Your task to perform on an android device: toggle translation in the chrome app Image 0: 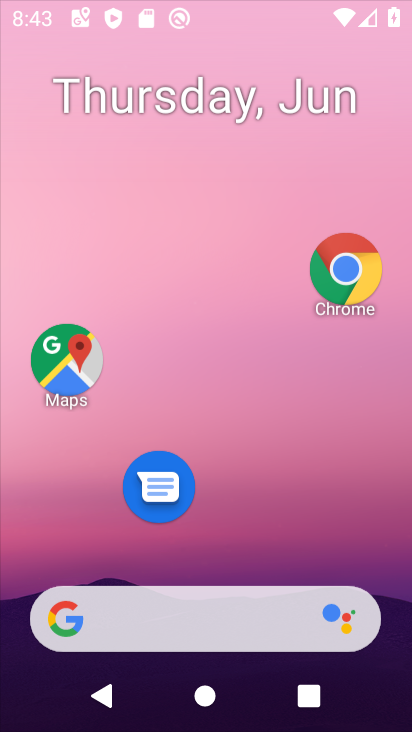
Step 0: click (230, 213)
Your task to perform on an android device: toggle translation in the chrome app Image 1: 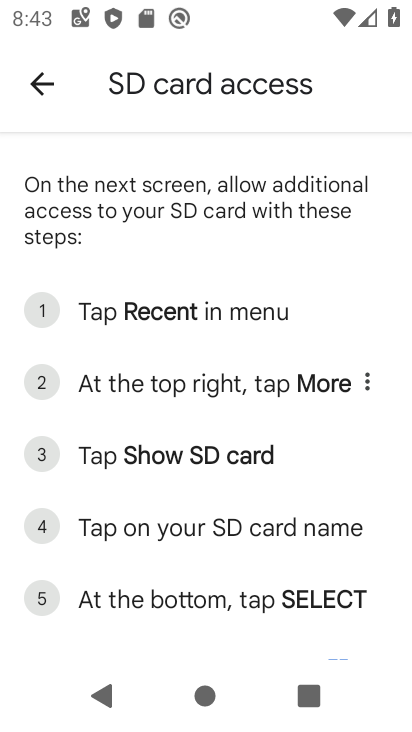
Step 1: drag from (208, 553) to (268, 73)
Your task to perform on an android device: toggle translation in the chrome app Image 2: 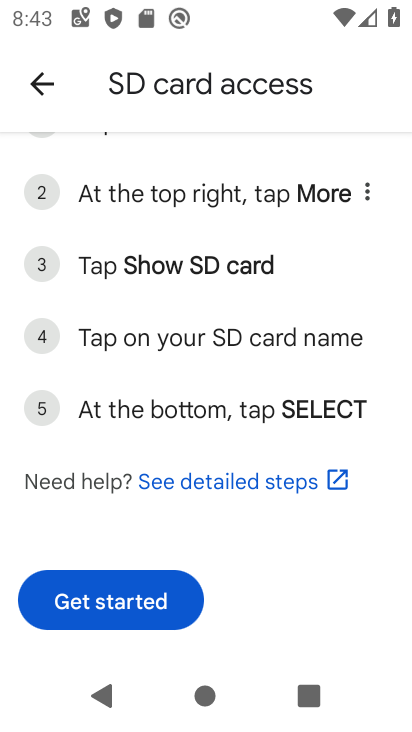
Step 2: drag from (214, 211) to (406, 711)
Your task to perform on an android device: toggle translation in the chrome app Image 3: 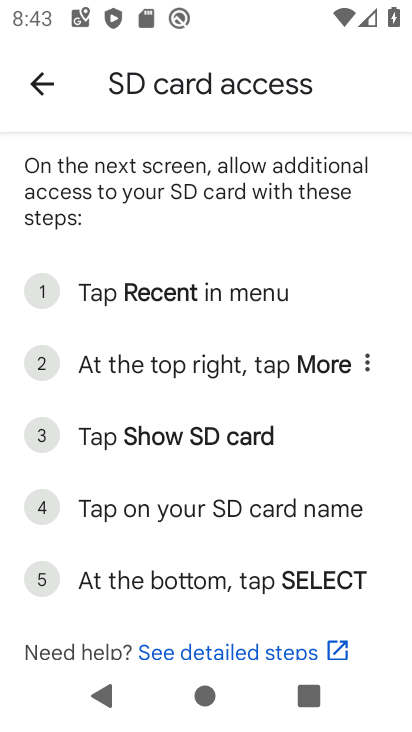
Step 3: press back button
Your task to perform on an android device: toggle translation in the chrome app Image 4: 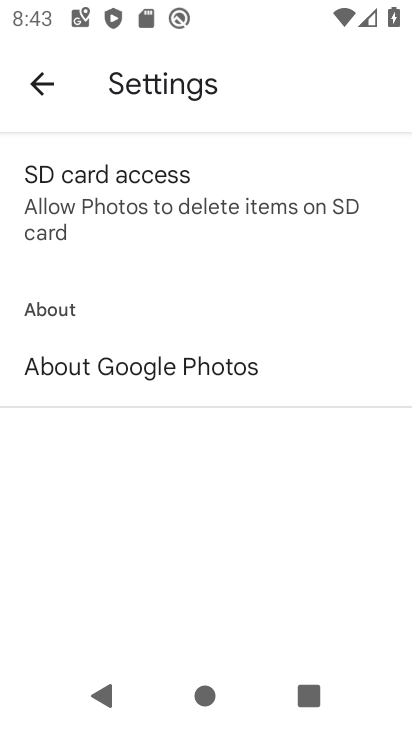
Step 4: drag from (229, 512) to (296, 224)
Your task to perform on an android device: toggle translation in the chrome app Image 5: 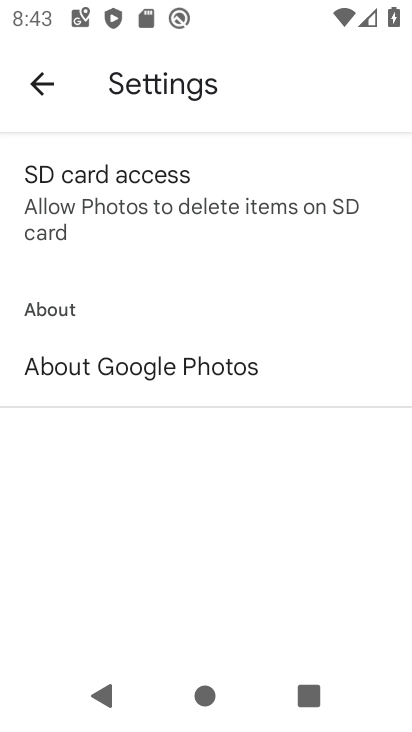
Step 5: press back button
Your task to perform on an android device: toggle translation in the chrome app Image 6: 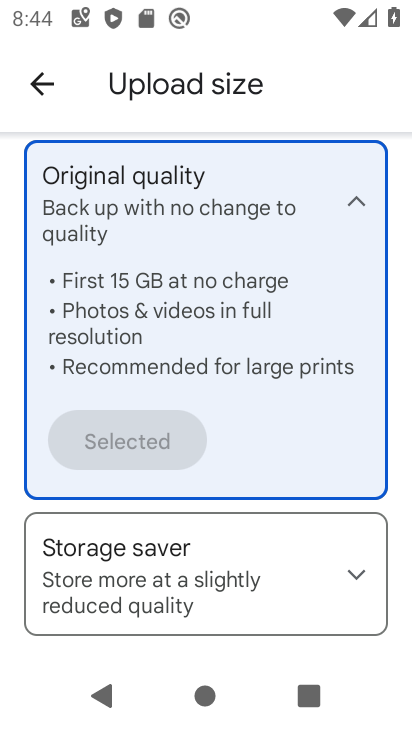
Step 6: drag from (187, 584) to (187, 56)
Your task to perform on an android device: toggle translation in the chrome app Image 7: 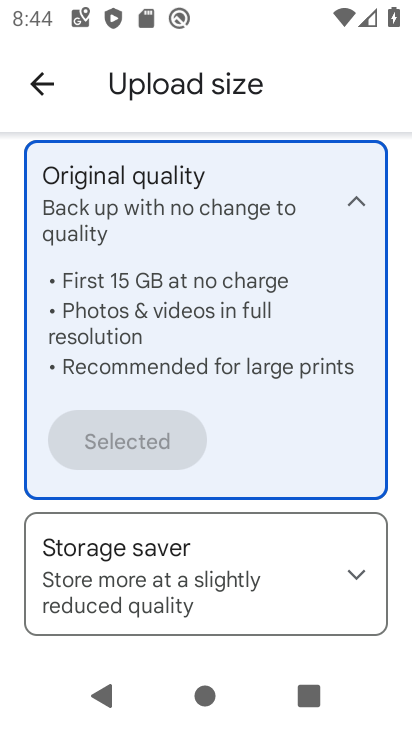
Step 7: press back button
Your task to perform on an android device: toggle translation in the chrome app Image 8: 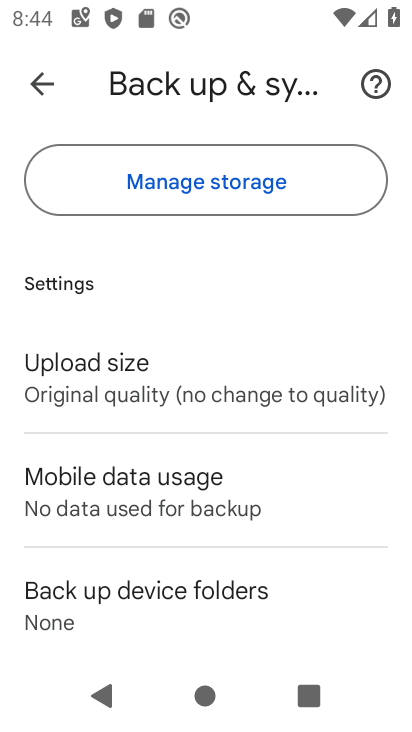
Step 8: drag from (168, 337) to (346, 724)
Your task to perform on an android device: toggle translation in the chrome app Image 9: 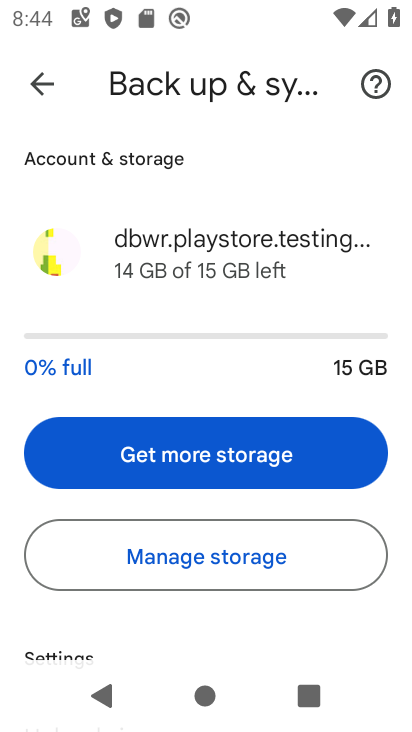
Step 9: drag from (194, 542) to (196, 1)
Your task to perform on an android device: toggle translation in the chrome app Image 10: 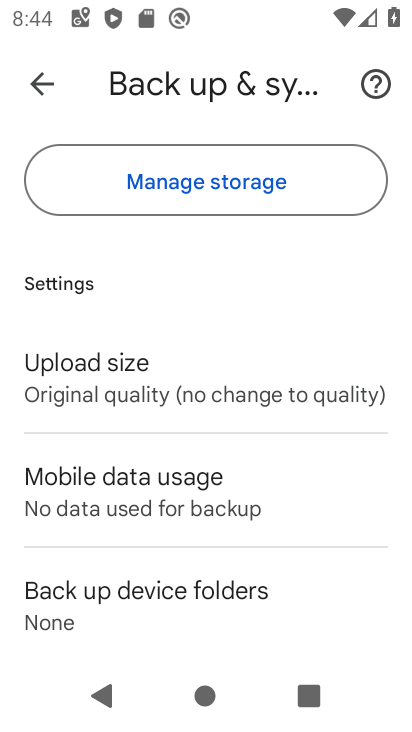
Step 10: drag from (218, 618) to (302, 181)
Your task to perform on an android device: toggle translation in the chrome app Image 11: 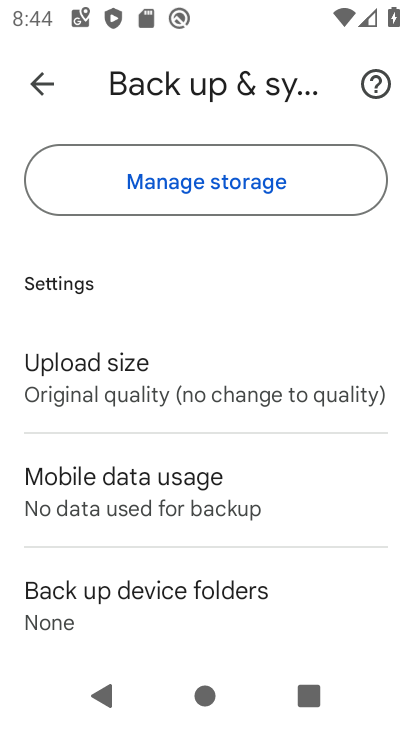
Step 11: press back button
Your task to perform on an android device: toggle translation in the chrome app Image 12: 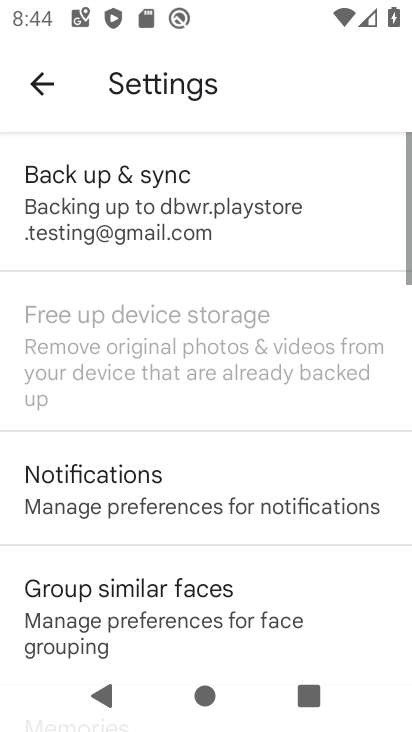
Step 12: drag from (175, 533) to (267, 200)
Your task to perform on an android device: toggle translation in the chrome app Image 13: 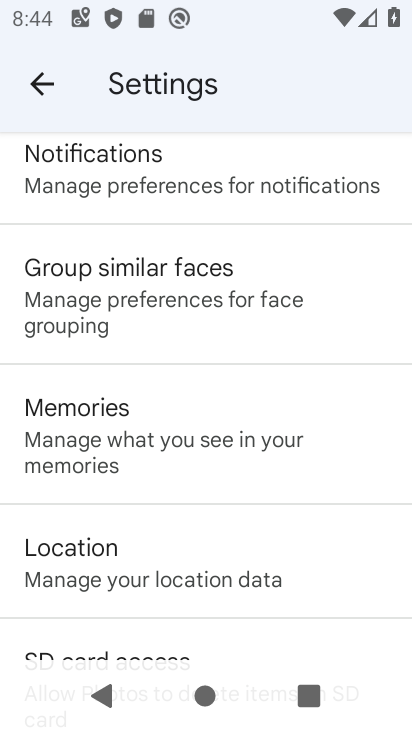
Step 13: press home button
Your task to perform on an android device: toggle translation in the chrome app Image 14: 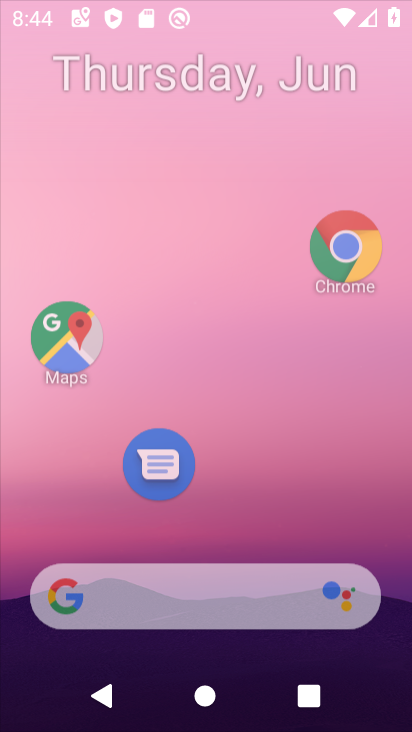
Step 14: drag from (216, 580) to (301, 5)
Your task to perform on an android device: toggle translation in the chrome app Image 15: 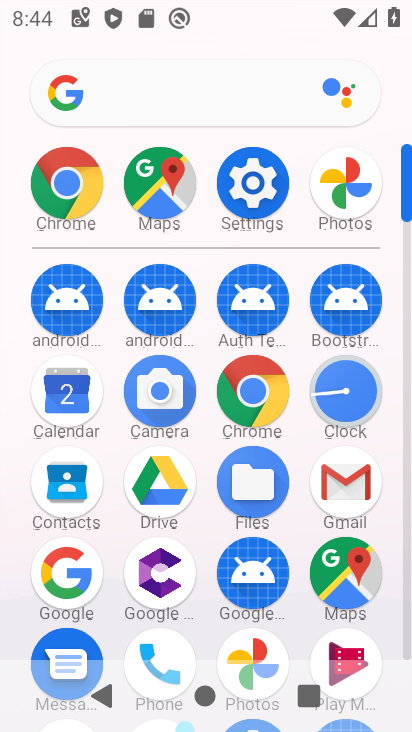
Step 15: drag from (204, 578) to (208, 232)
Your task to perform on an android device: toggle translation in the chrome app Image 16: 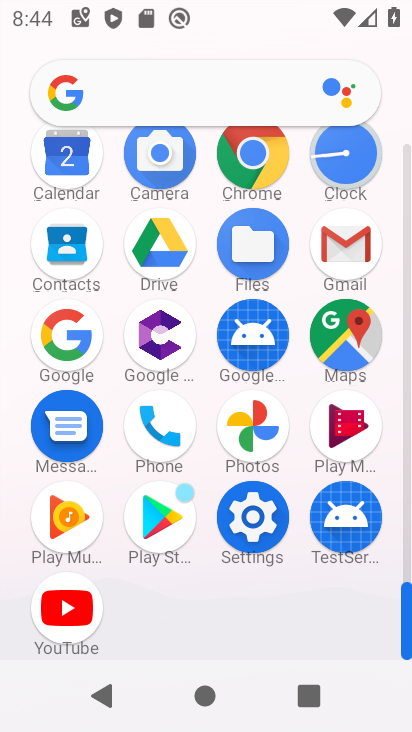
Step 16: click (251, 143)
Your task to perform on an android device: toggle translation in the chrome app Image 17: 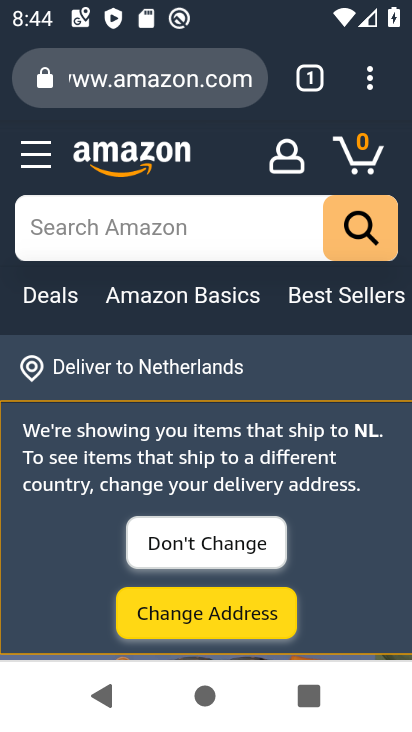
Step 17: drag from (211, 564) to (248, 320)
Your task to perform on an android device: toggle translation in the chrome app Image 18: 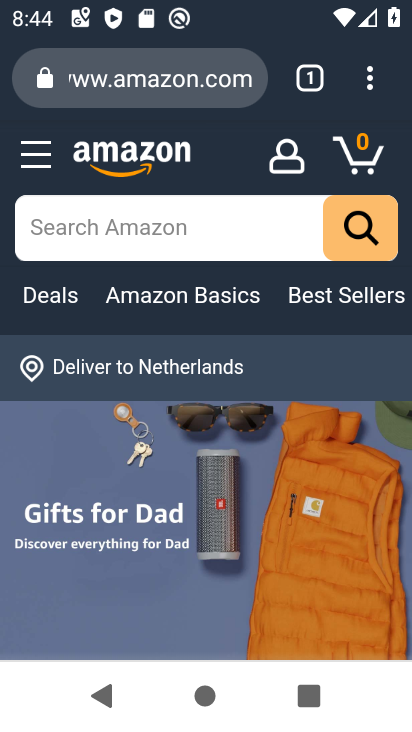
Step 18: drag from (376, 75) to (132, 535)
Your task to perform on an android device: toggle translation in the chrome app Image 19: 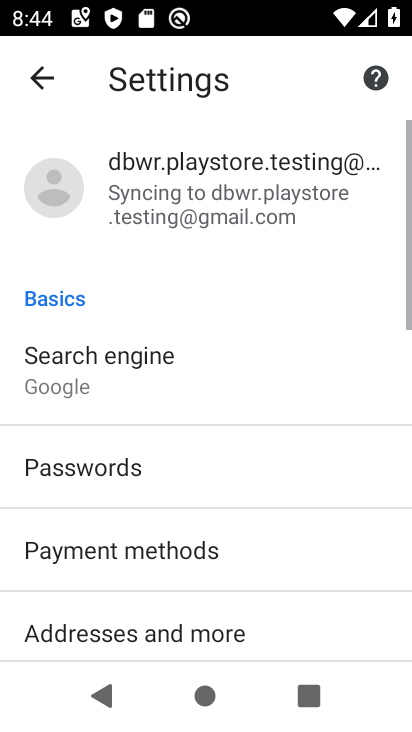
Step 19: drag from (255, 533) to (324, 27)
Your task to perform on an android device: toggle translation in the chrome app Image 20: 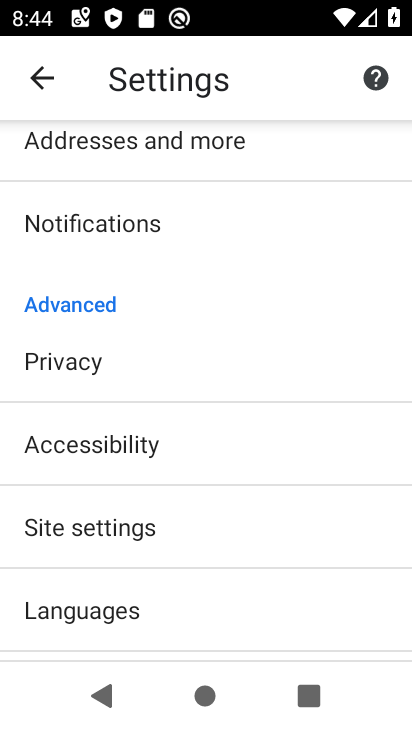
Step 20: click (143, 621)
Your task to perform on an android device: toggle translation in the chrome app Image 21: 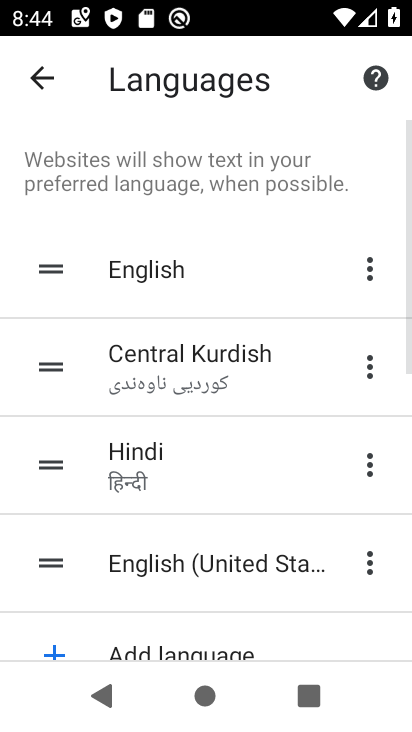
Step 21: drag from (304, 426) to (377, 89)
Your task to perform on an android device: toggle translation in the chrome app Image 22: 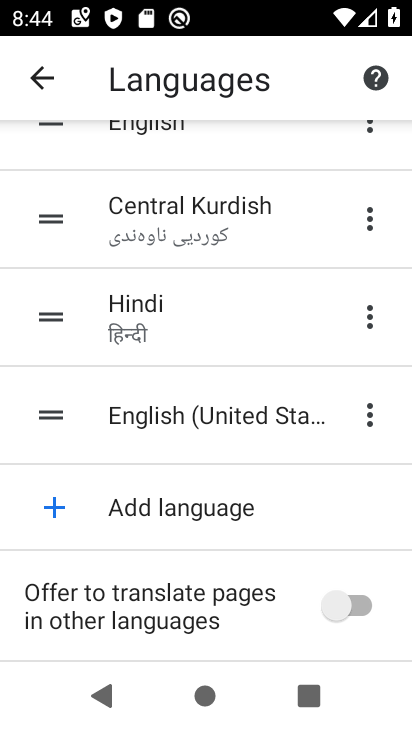
Step 22: click (308, 607)
Your task to perform on an android device: toggle translation in the chrome app Image 23: 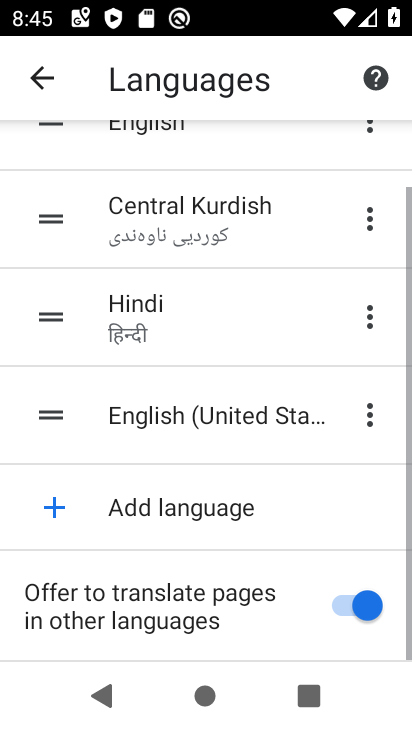
Step 23: task complete